Your task to perform on an android device: toggle sleep mode Image 0: 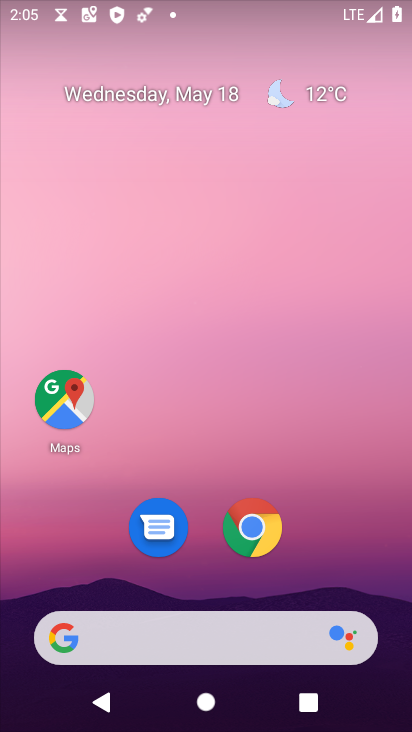
Step 0: drag from (307, 582) to (202, 33)
Your task to perform on an android device: toggle sleep mode Image 1: 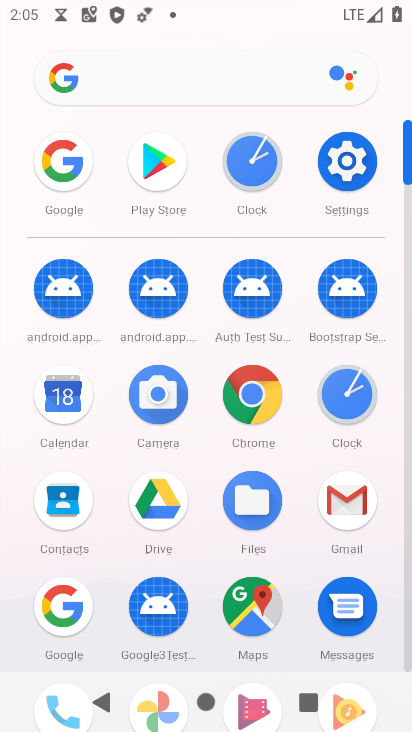
Step 1: click (343, 165)
Your task to perform on an android device: toggle sleep mode Image 2: 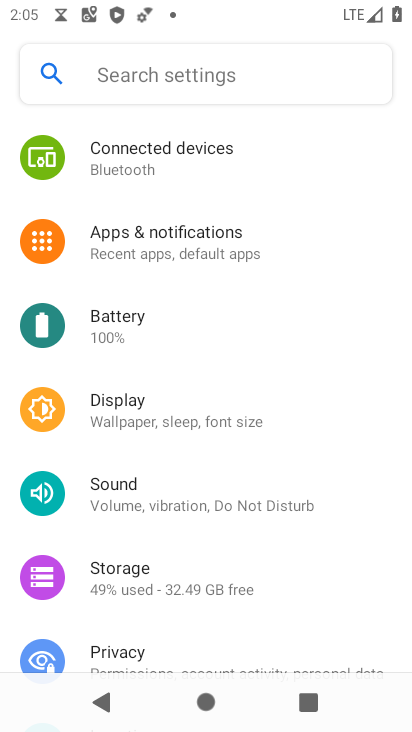
Step 2: click (178, 412)
Your task to perform on an android device: toggle sleep mode Image 3: 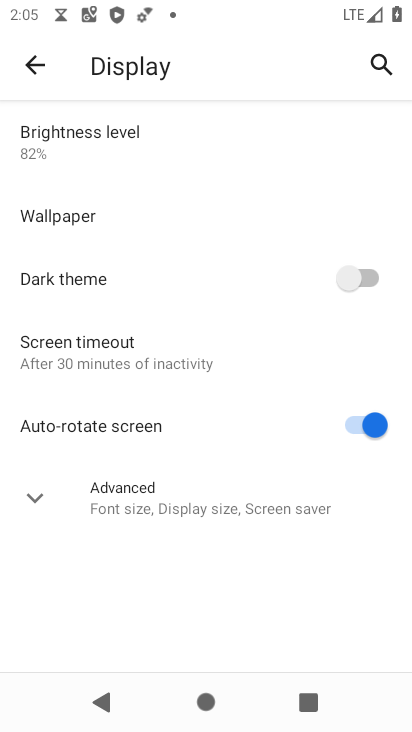
Step 3: task complete